Your task to perform on an android device: open app "Truecaller" (install if not already installed) Image 0: 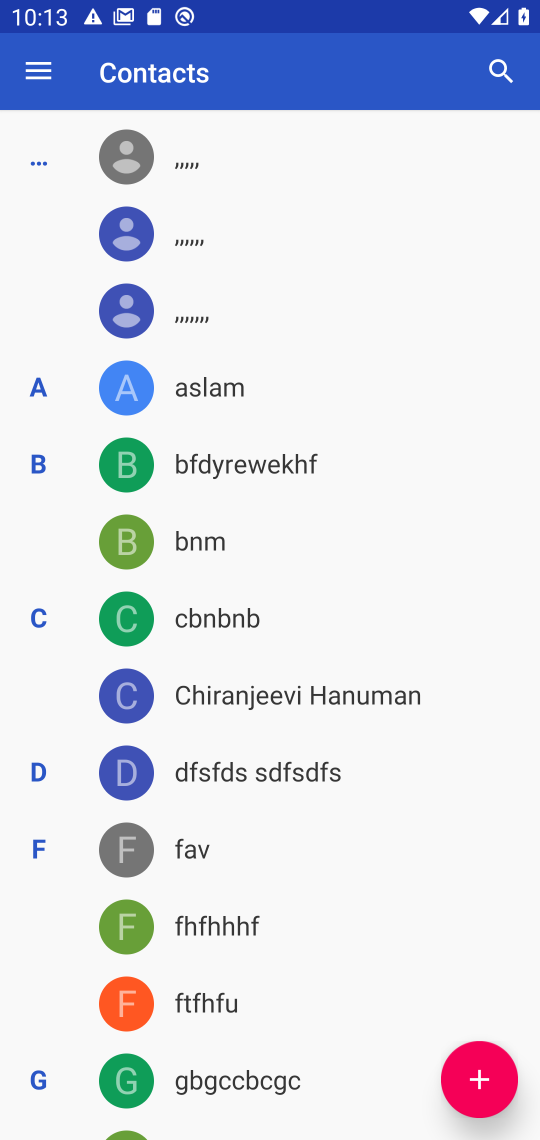
Step 0: press home button
Your task to perform on an android device: open app "Truecaller" (install if not already installed) Image 1: 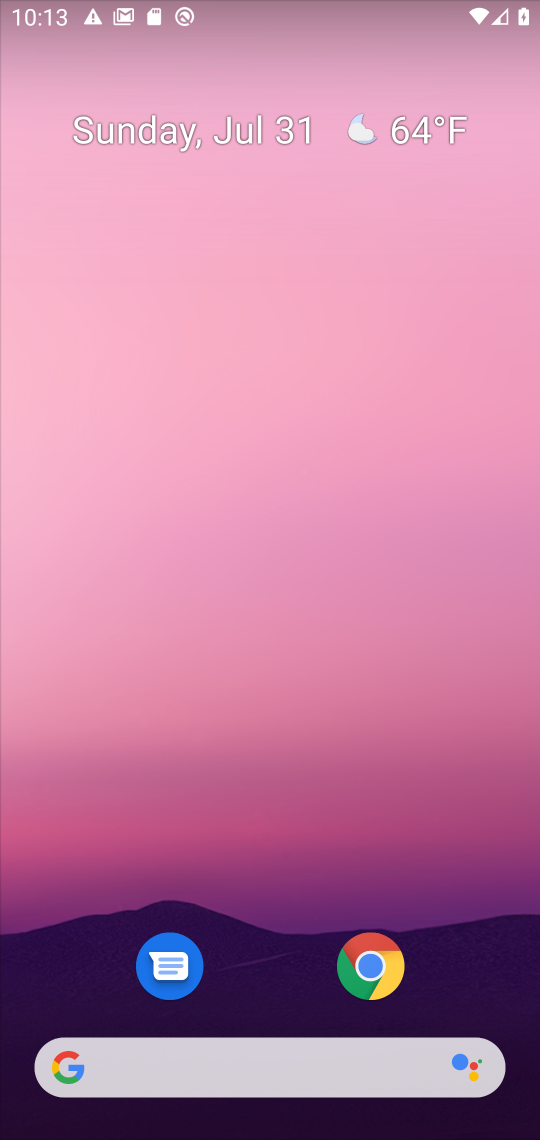
Step 1: drag from (270, 828) to (134, 0)
Your task to perform on an android device: open app "Truecaller" (install if not already installed) Image 2: 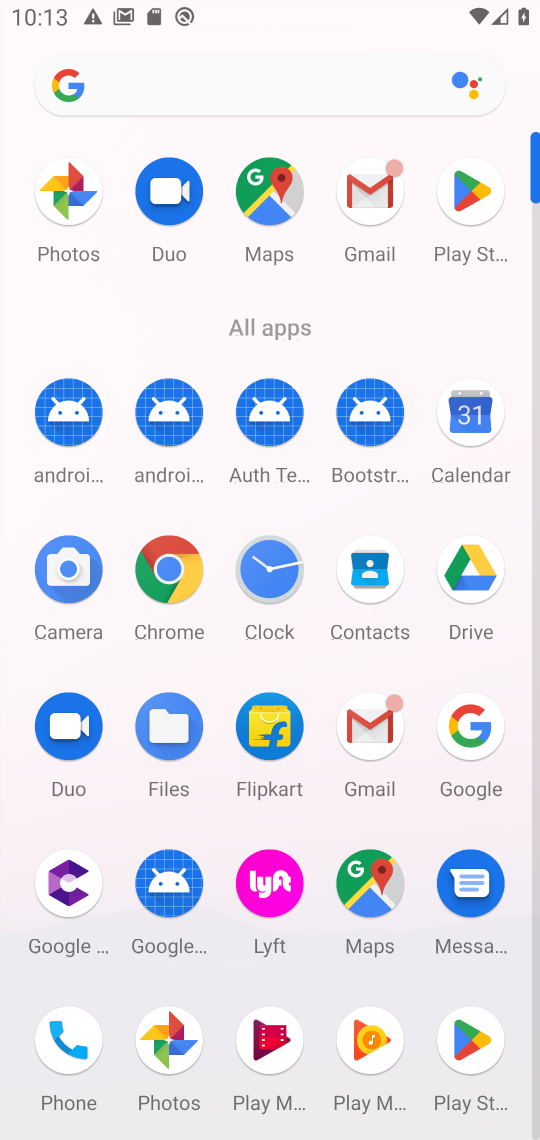
Step 2: click (474, 219)
Your task to perform on an android device: open app "Truecaller" (install if not already installed) Image 3: 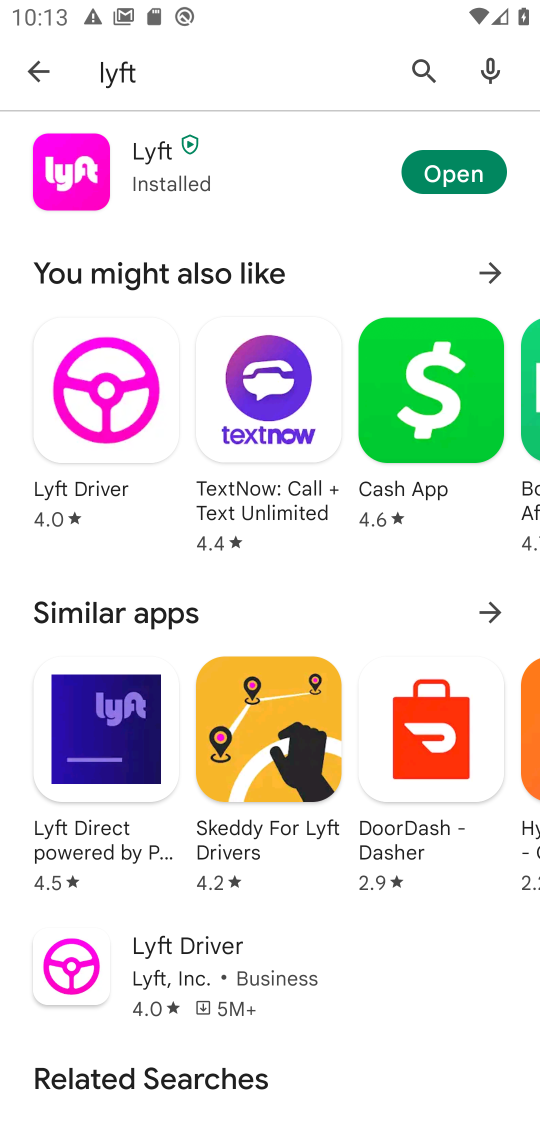
Step 3: click (163, 68)
Your task to perform on an android device: open app "Truecaller" (install if not already installed) Image 4: 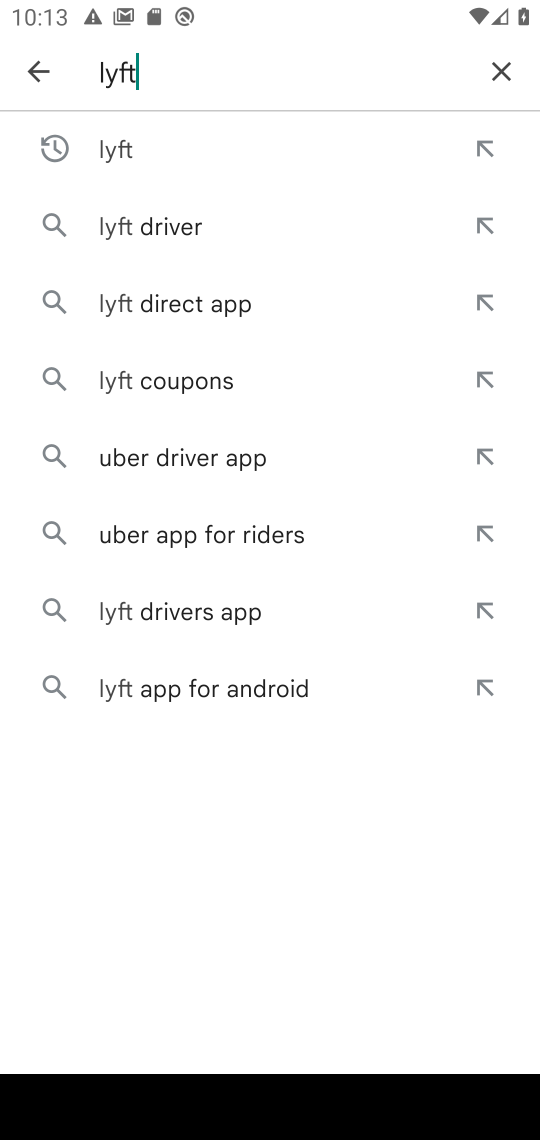
Step 4: click (520, 60)
Your task to perform on an android device: open app "Truecaller" (install if not already installed) Image 5: 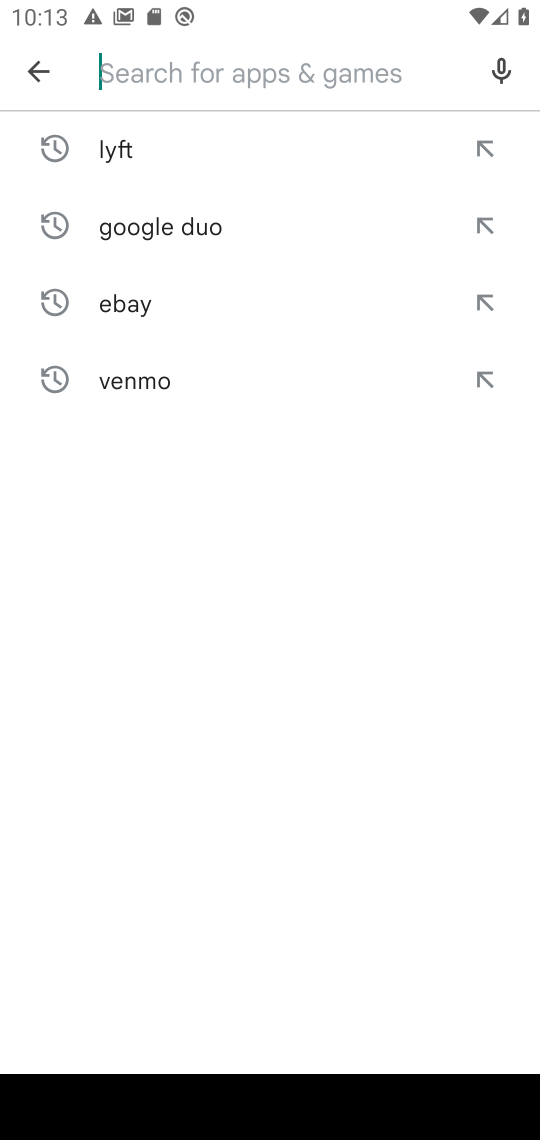
Step 5: click (219, 75)
Your task to perform on an android device: open app "Truecaller" (install if not already installed) Image 6: 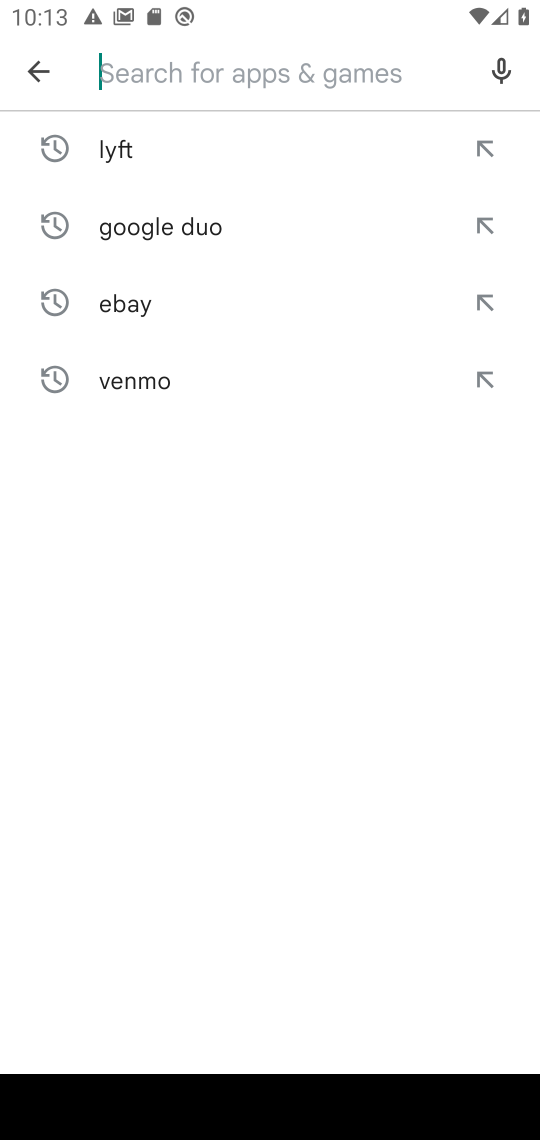
Step 6: type "truecaller"
Your task to perform on an android device: open app "Truecaller" (install if not already installed) Image 7: 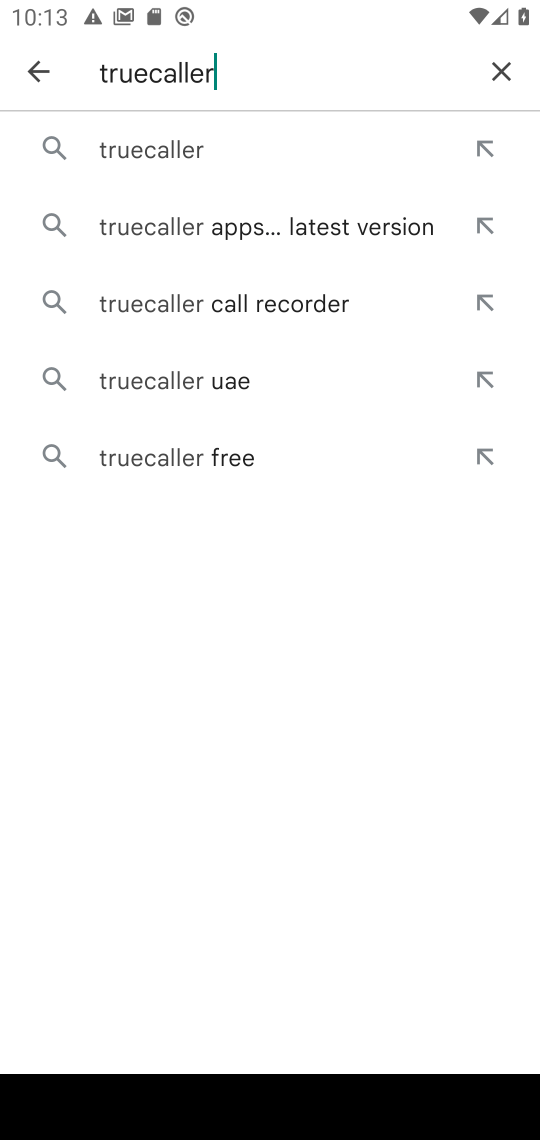
Step 7: click (191, 162)
Your task to perform on an android device: open app "Truecaller" (install if not already installed) Image 8: 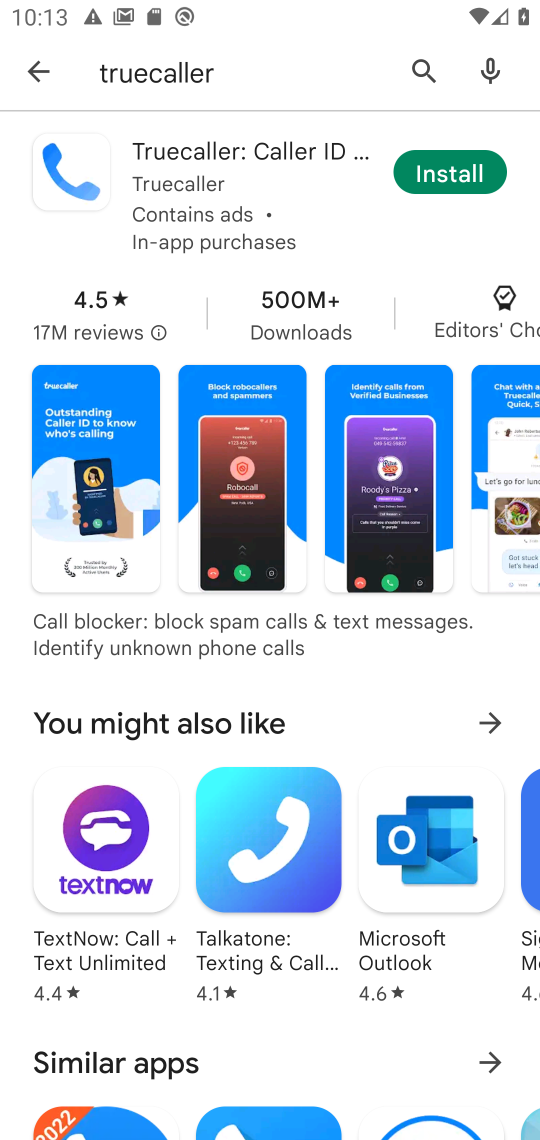
Step 8: click (497, 163)
Your task to perform on an android device: open app "Truecaller" (install if not already installed) Image 9: 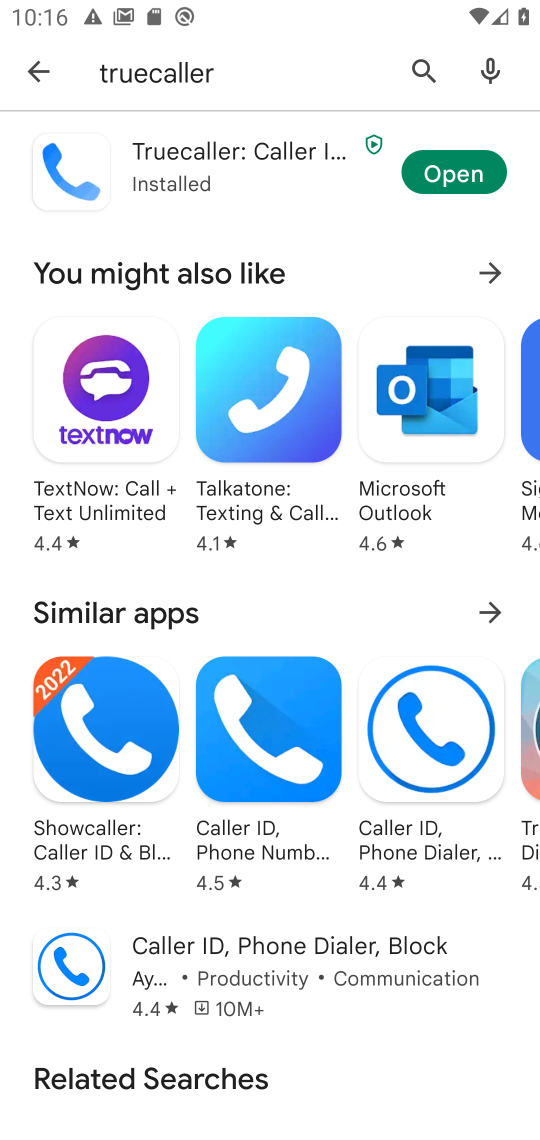
Step 9: click (450, 183)
Your task to perform on an android device: open app "Truecaller" (install if not already installed) Image 10: 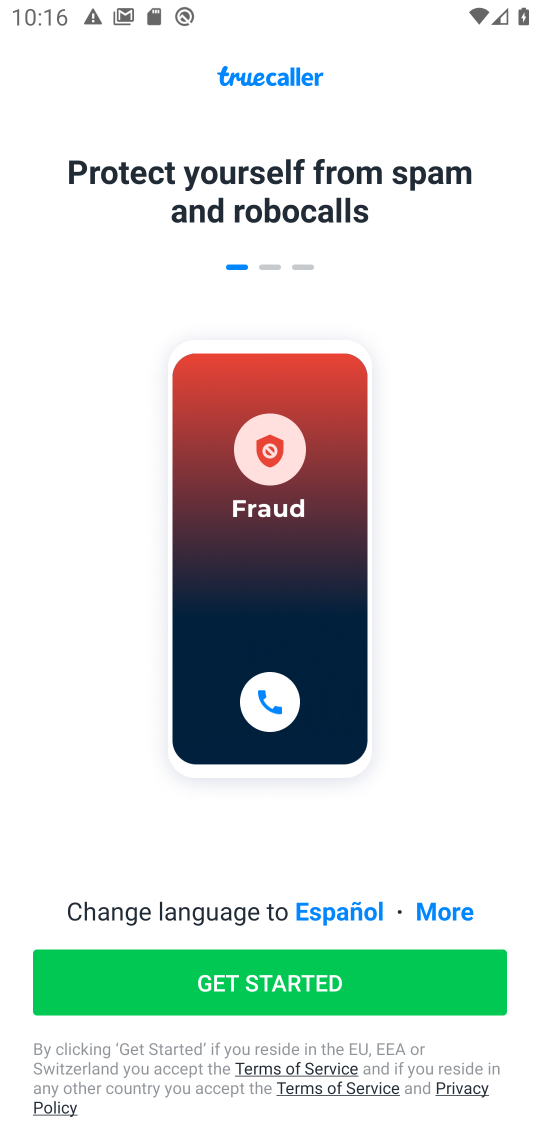
Step 10: click (336, 967)
Your task to perform on an android device: open app "Truecaller" (install if not already installed) Image 11: 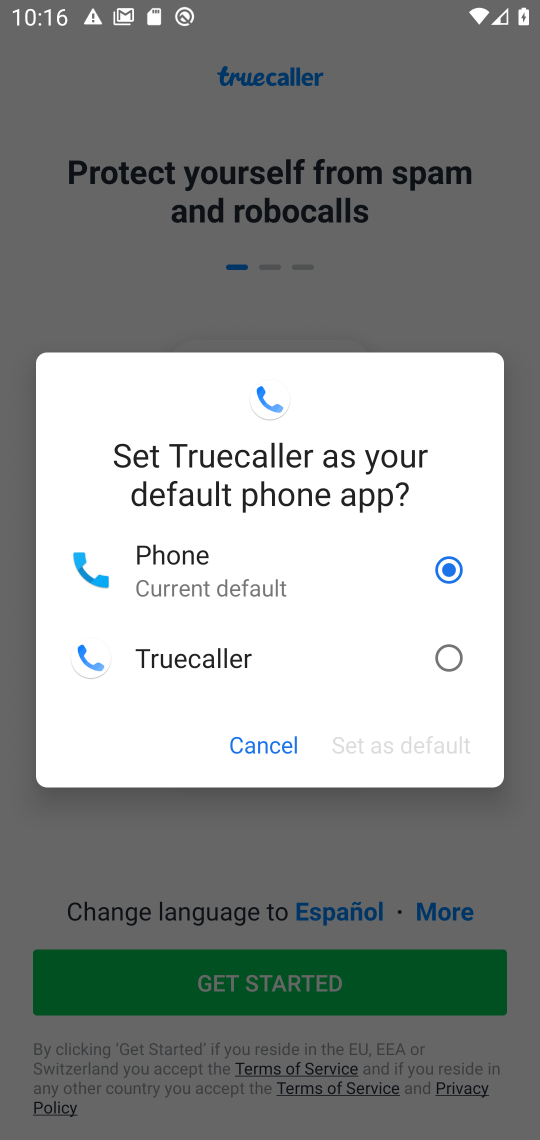
Step 11: click (434, 663)
Your task to perform on an android device: open app "Truecaller" (install if not already installed) Image 12: 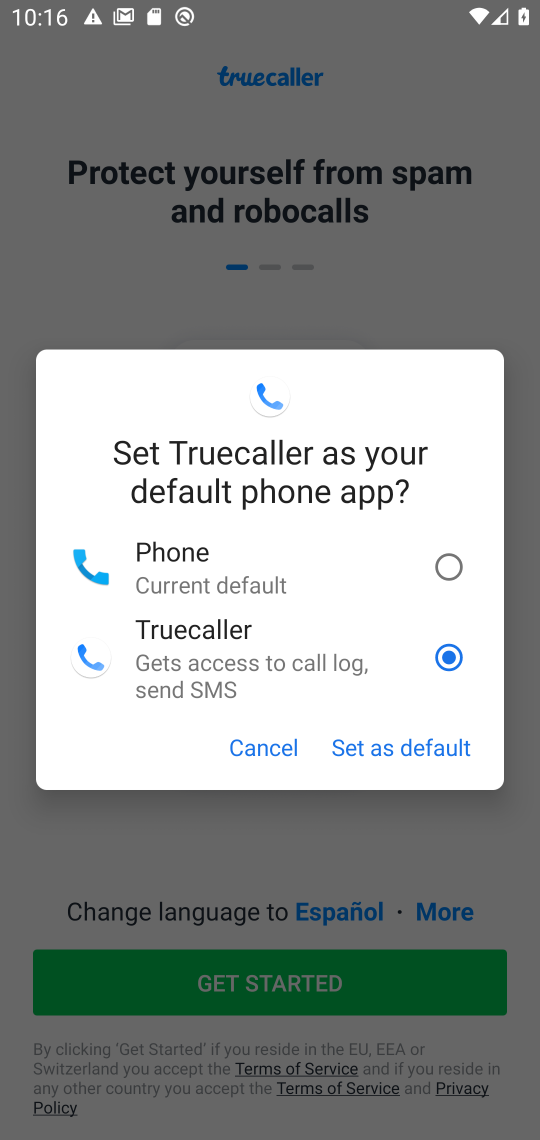
Step 12: click (429, 745)
Your task to perform on an android device: open app "Truecaller" (install if not already installed) Image 13: 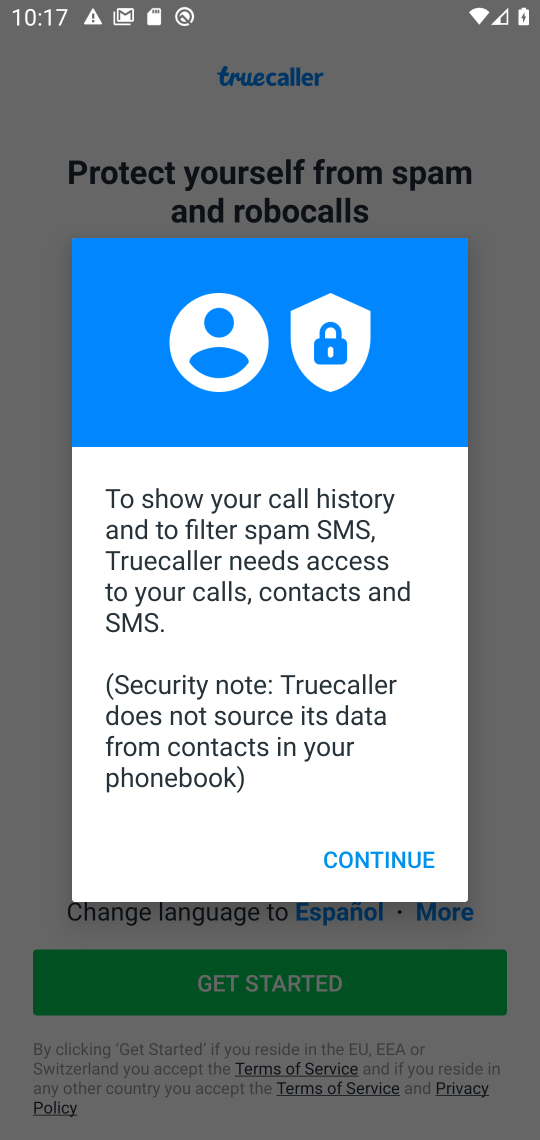
Step 13: click (368, 846)
Your task to perform on an android device: open app "Truecaller" (install if not already installed) Image 14: 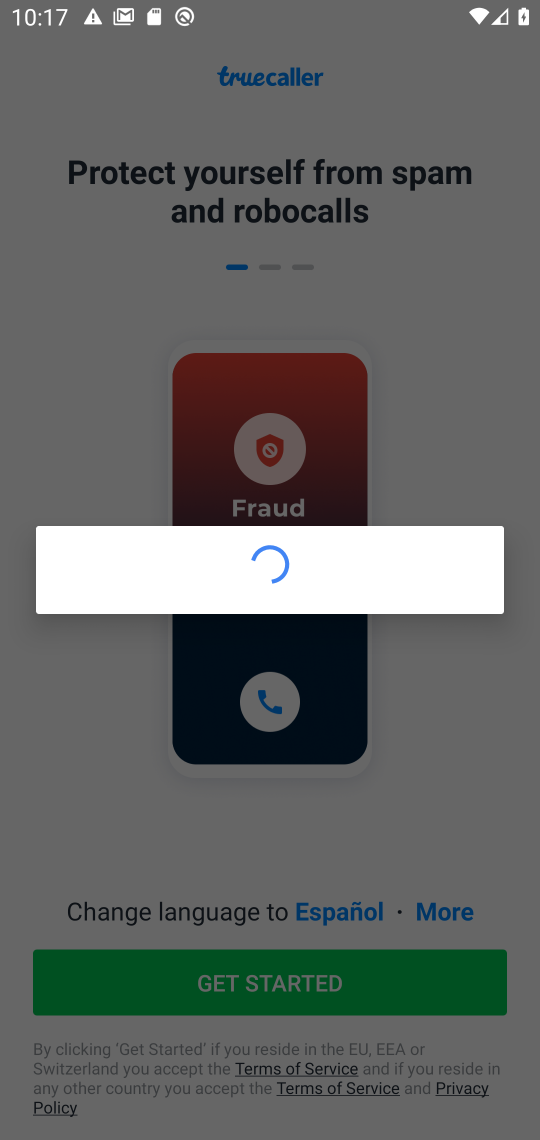
Step 14: click (307, 1005)
Your task to perform on an android device: open app "Truecaller" (install if not already installed) Image 15: 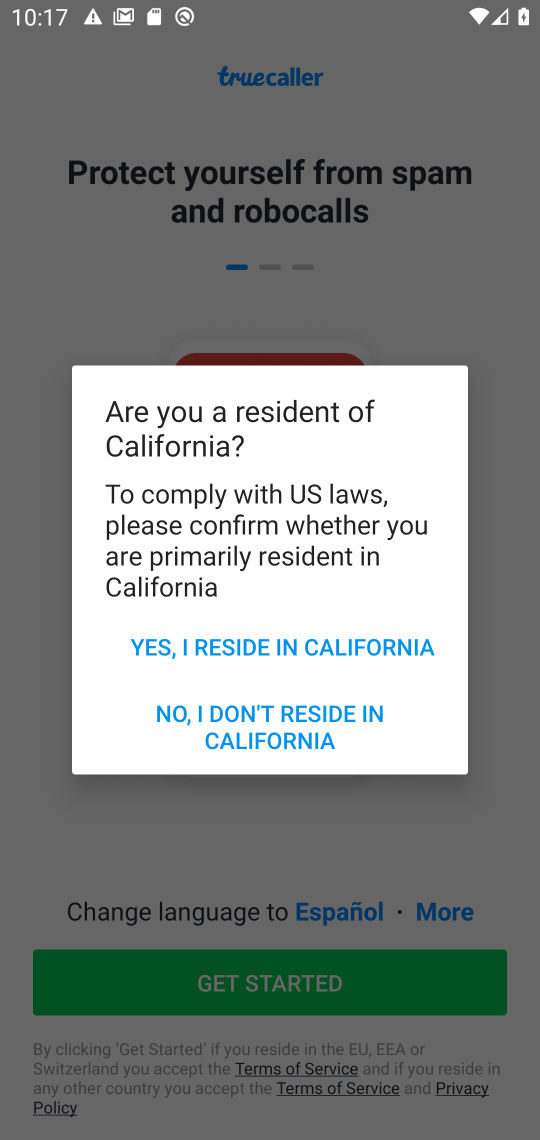
Step 15: task complete